Your task to perform on an android device: Open the stopwatch Image 0: 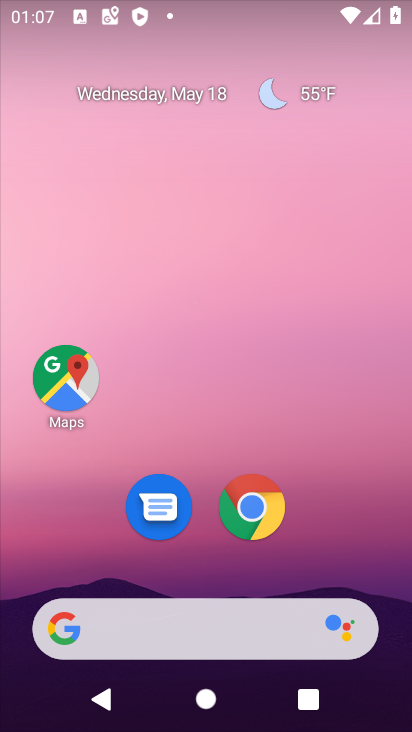
Step 0: drag from (373, 582) to (297, 15)
Your task to perform on an android device: Open the stopwatch Image 1: 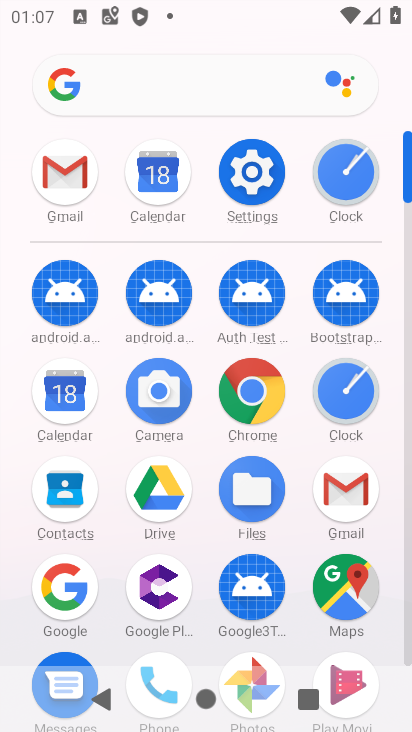
Step 1: click (404, 650)
Your task to perform on an android device: Open the stopwatch Image 2: 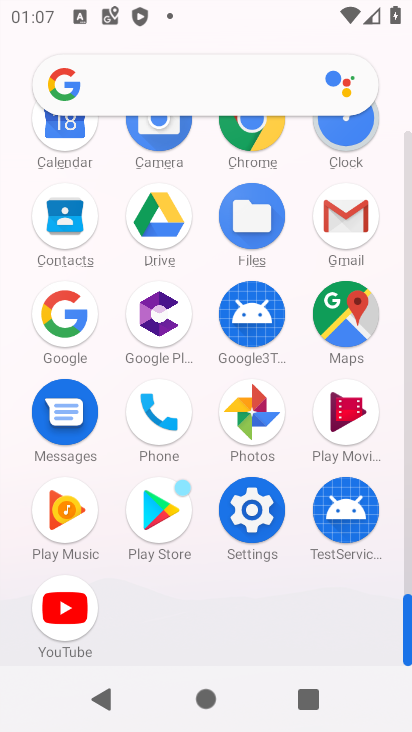
Step 2: click (348, 132)
Your task to perform on an android device: Open the stopwatch Image 3: 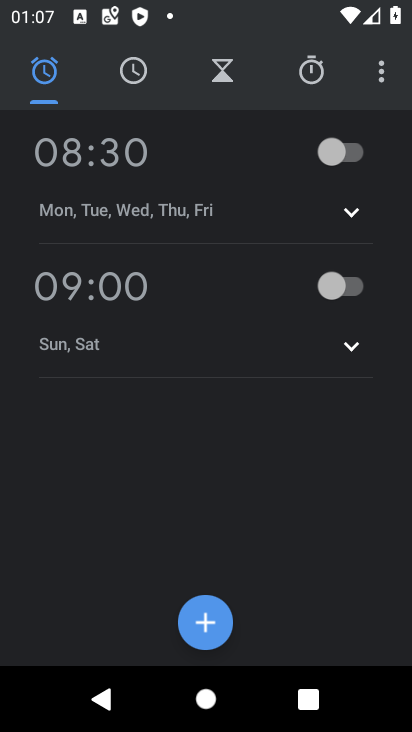
Step 3: click (312, 73)
Your task to perform on an android device: Open the stopwatch Image 4: 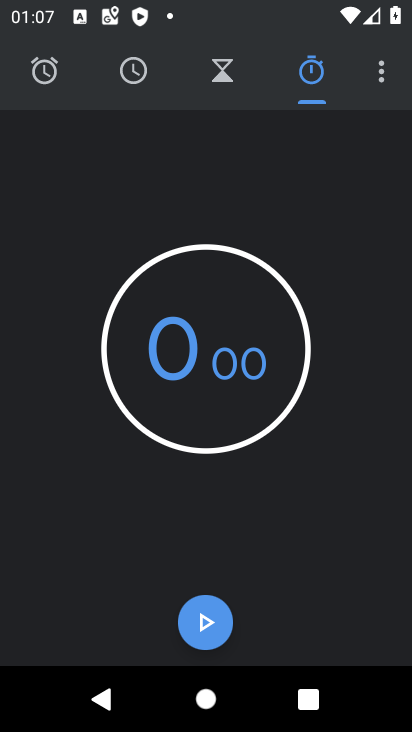
Step 4: task complete